Your task to perform on an android device: Open Reddit.com Image 0: 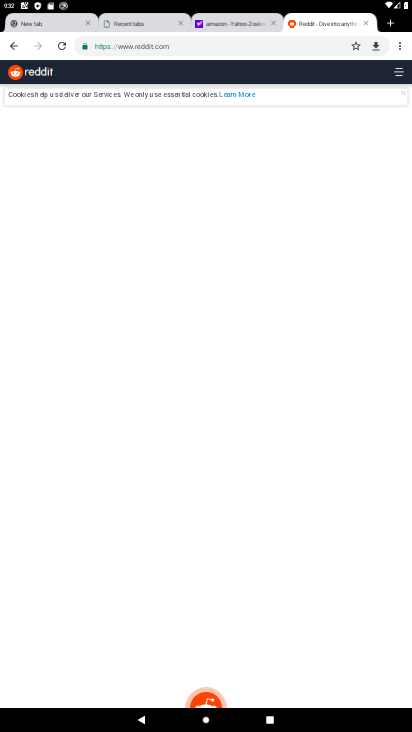
Step 0: task complete